Your task to perform on an android device: Open maps Image 0: 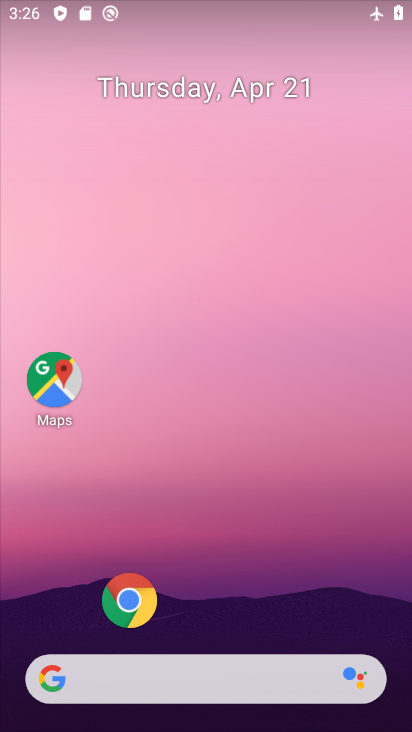
Step 0: click (56, 381)
Your task to perform on an android device: Open maps Image 1: 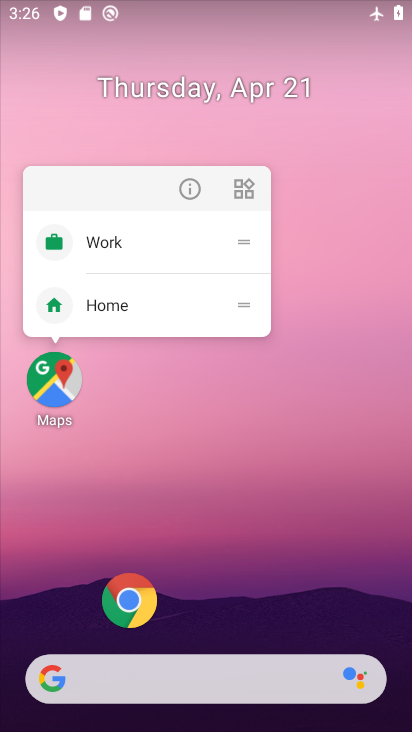
Step 1: click (191, 185)
Your task to perform on an android device: Open maps Image 2: 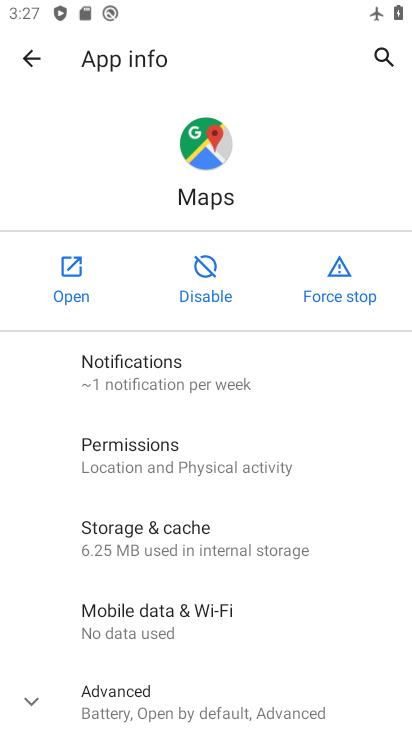
Step 2: click (64, 280)
Your task to perform on an android device: Open maps Image 3: 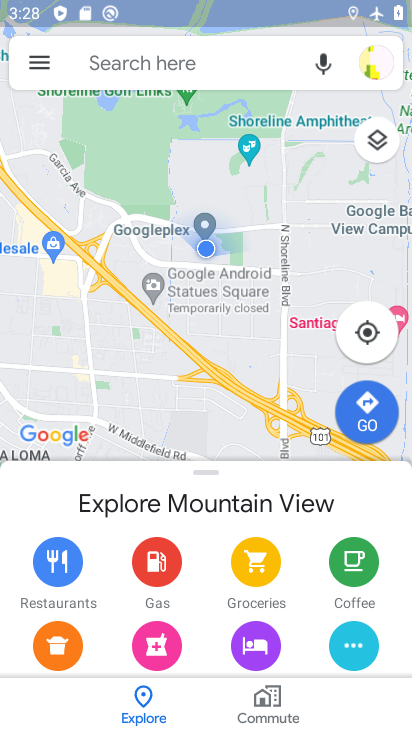
Step 3: task complete